Your task to perform on an android device: turn on bluetooth scan Image 0: 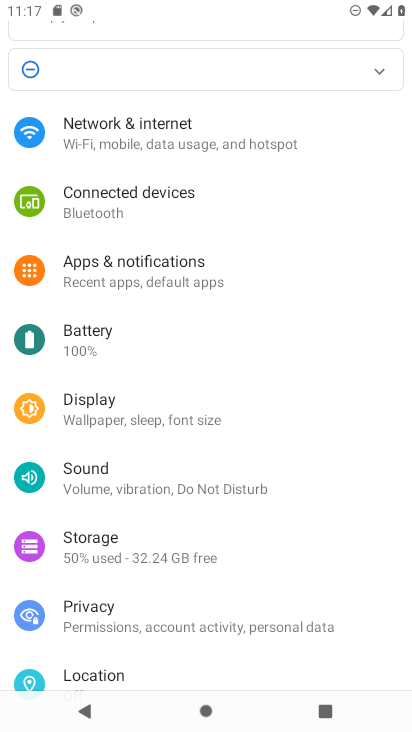
Step 0: click (160, 669)
Your task to perform on an android device: turn on bluetooth scan Image 1: 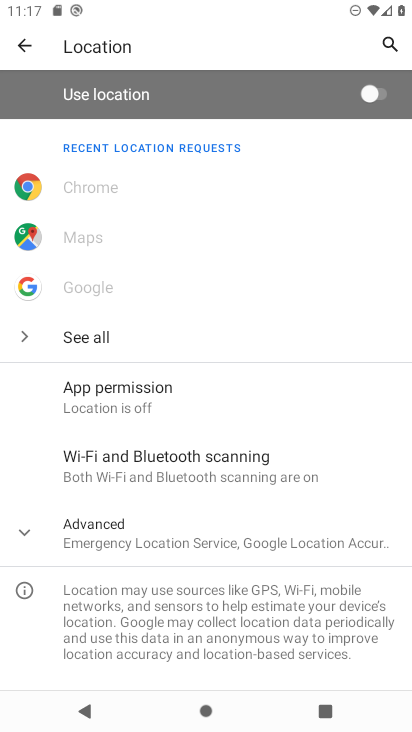
Step 1: click (200, 484)
Your task to perform on an android device: turn on bluetooth scan Image 2: 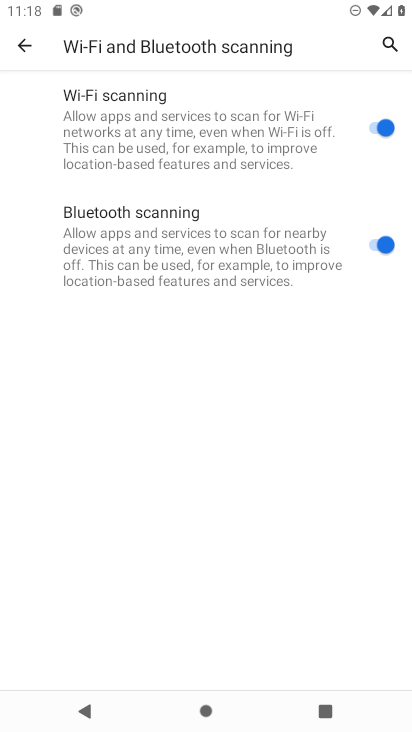
Step 2: task complete